Your task to perform on an android device: add a contact Image 0: 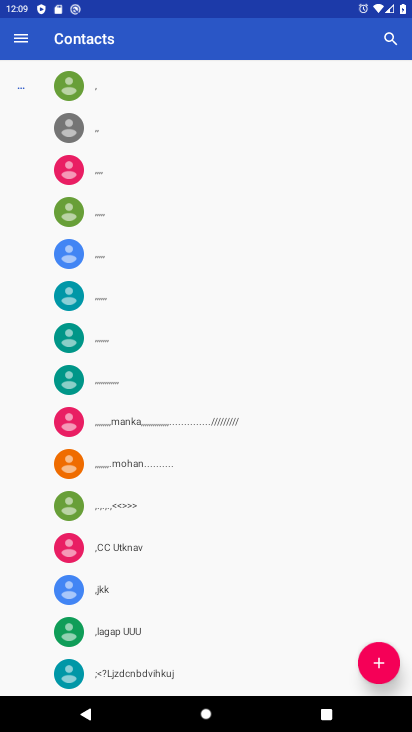
Step 0: press home button
Your task to perform on an android device: add a contact Image 1: 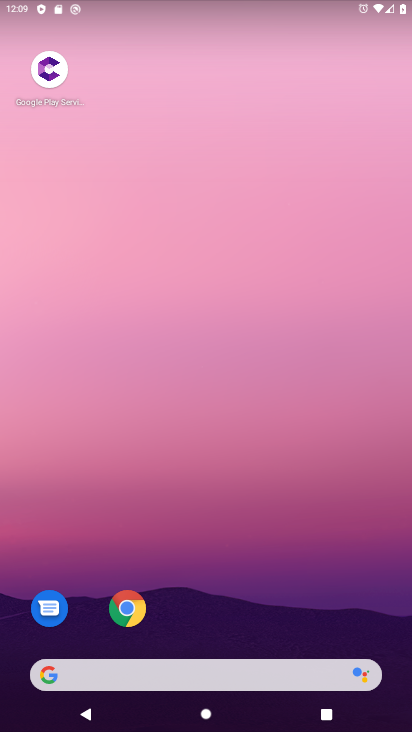
Step 1: drag from (260, 595) to (304, 343)
Your task to perform on an android device: add a contact Image 2: 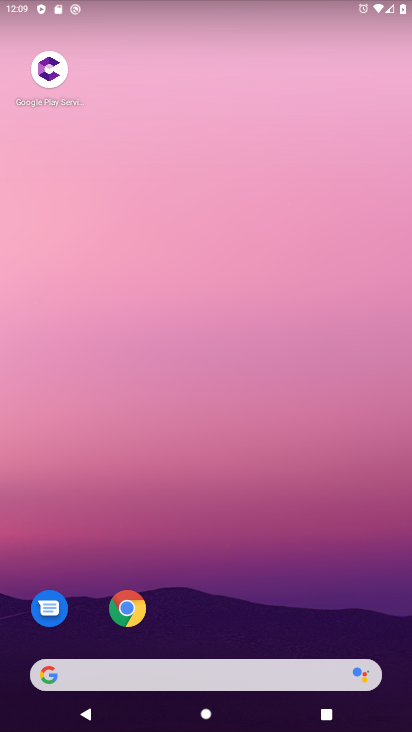
Step 2: drag from (250, 586) to (255, 377)
Your task to perform on an android device: add a contact Image 3: 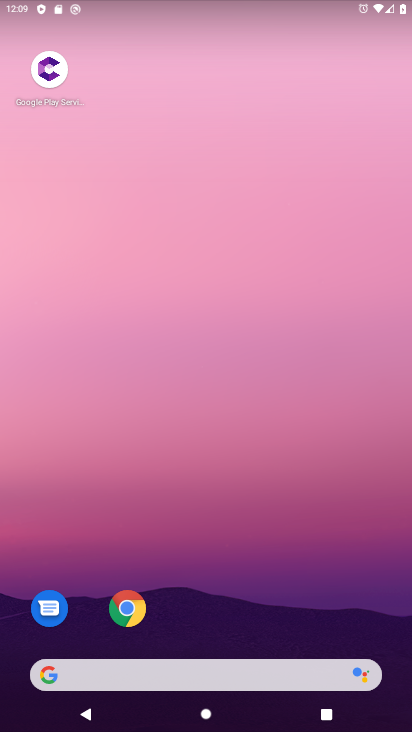
Step 3: drag from (228, 561) to (224, 343)
Your task to perform on an android device: add a contact Image 4: 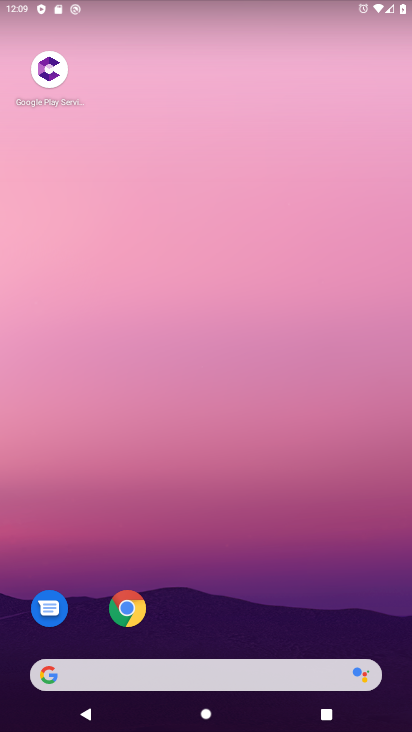
Step 4: drag from (208, 578) to (204, 254)
Your task to perform on an android device: add a contact Image 5: 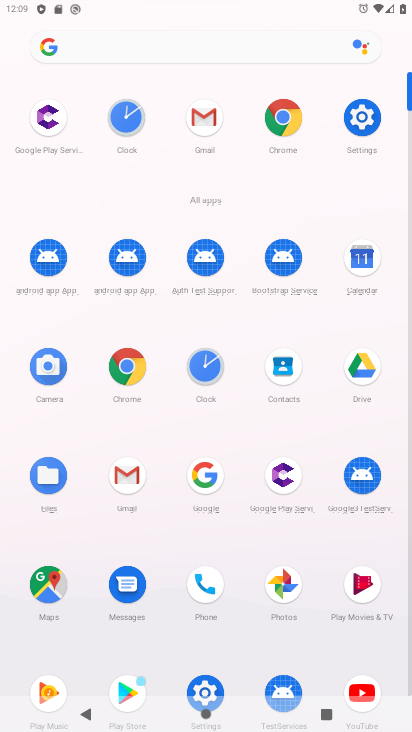
Step 5: click (299, 370)
Your task to perform on an android device: add a contact Image 6: 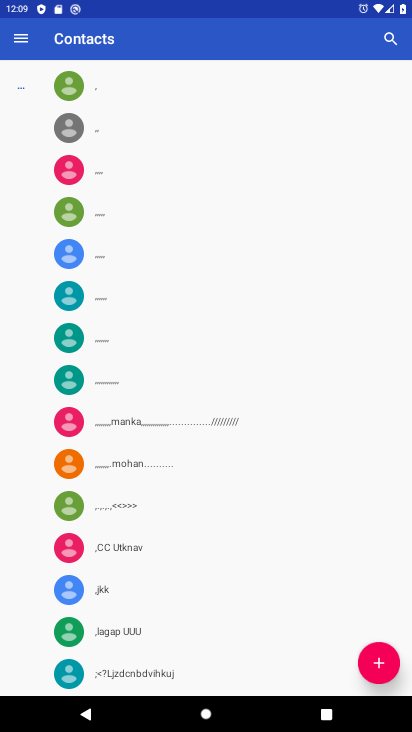
Step 6: click (378, 656)
Your task to perform on an android device: add a contact Image 7: 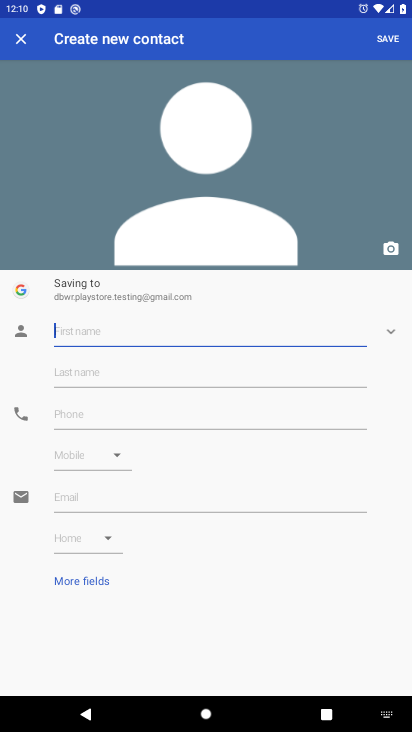
Step 7: type "bjvjbj"
Your task to perform on an android device: add a contact Image 8: 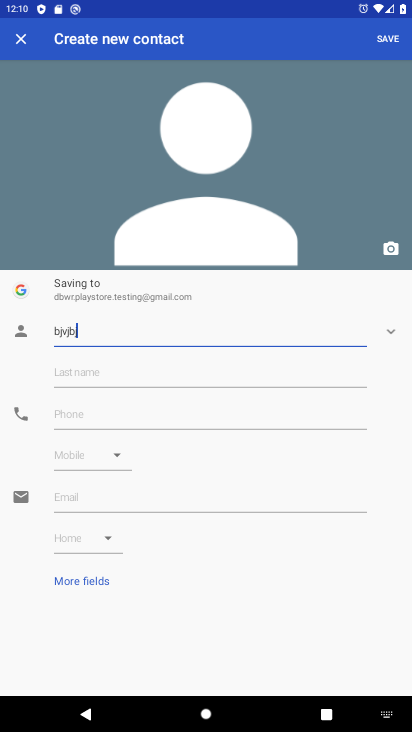
Step 8: click (162, 423)
Your task to perform on an android device: add a contact Image 9: 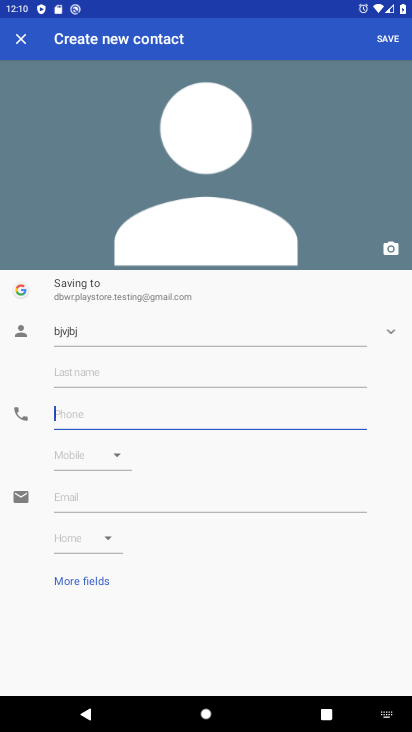
Step 9: type "7987977897"
Your task to perform on an android device: add a contact Image 10: 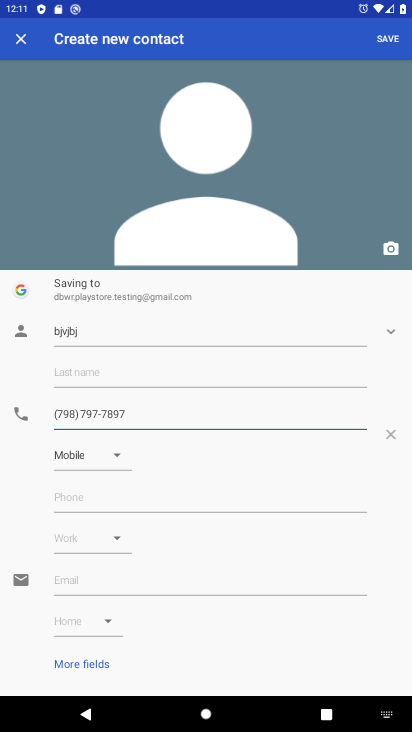
Step 10: click (386, 42)
Your task to perform on an android device: add a contact Image 11: 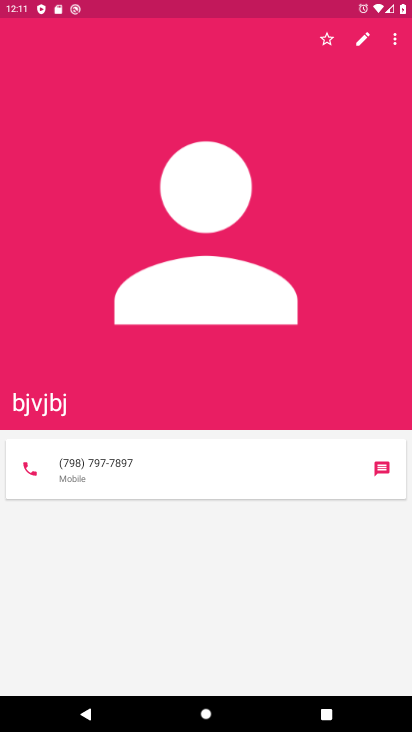
Step 11: task complete